Your task to perform on an android device: turn notification dots off Image 0: 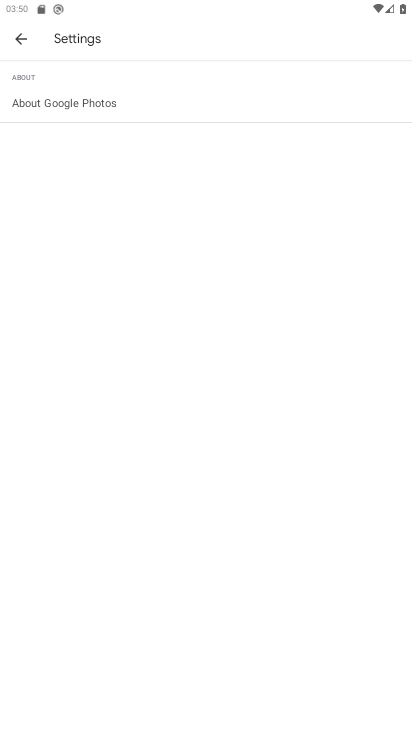
Step 0: press home button
Your task to perform on an android device: turn notification dots off Image 1: 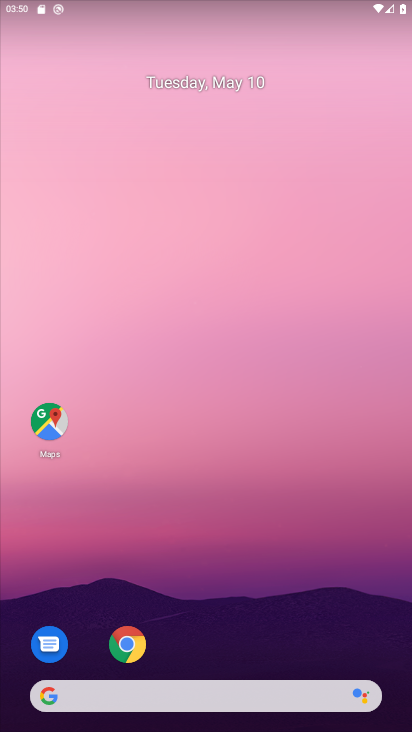
Step 1: drag from (201, 655) to (222, 18)
Your task to perform on an android device: turn notification dots off Image 2: 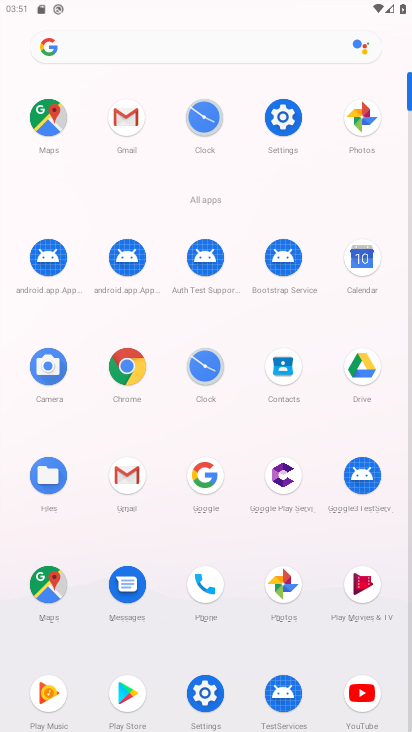
Step 2: click (282, 114)
Your task to perform on an android device: turn notification dots off Image 3: 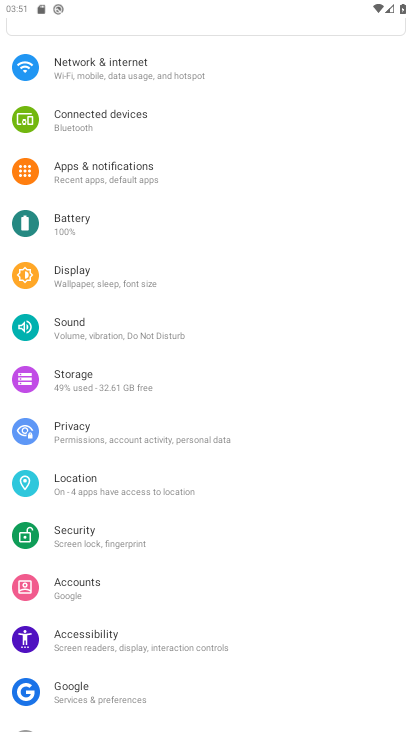
Step 3: click (160, 168)
Your task to perform on an android device: turn notification dots off Image 4: 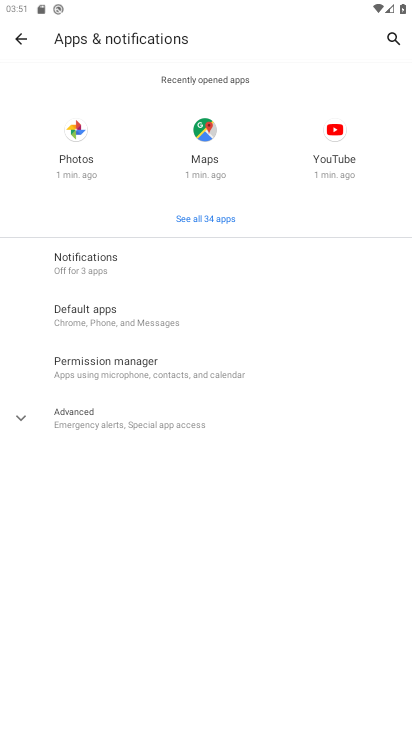
Step 4: click (122, 261)
Your task to perform on an android device: turn notification dots off Image 5: 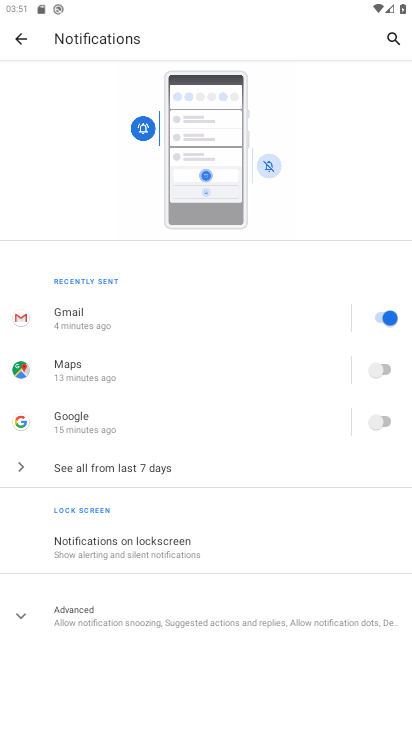
Step 5: click (82, 615)
Your task to perform on an android device: turn notification dots off Image 6: 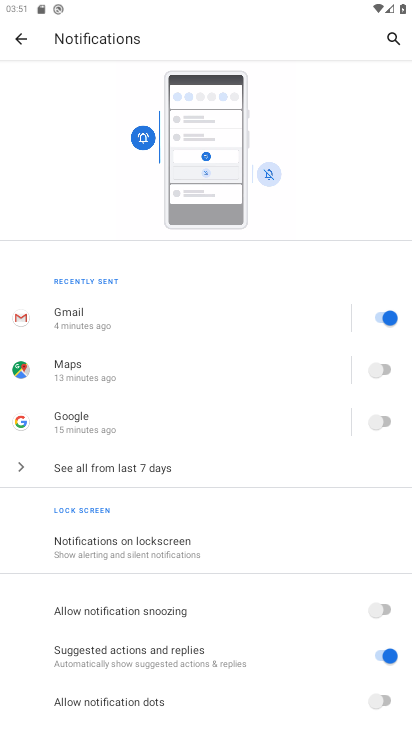
Step 6: task complete